Your task to perform on an android device: Search for Mexican restaurants on Maps Image 0: 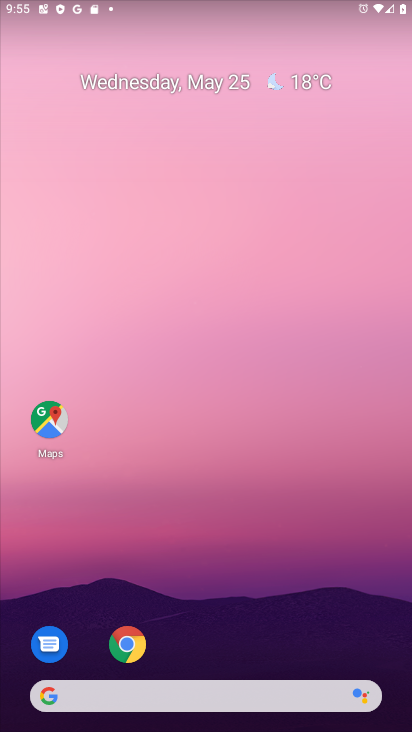
Step 0: click (44, 419)
Your task to perform on an android device: Search for Mexican restaurants on Maps Image 1: 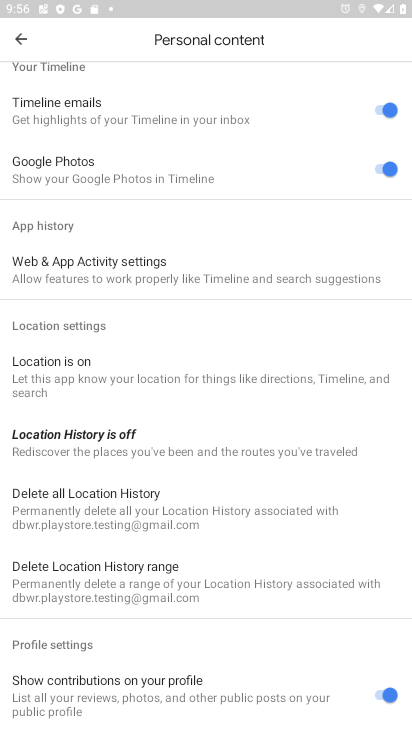
Step 1: click (23, 39)
Your task to perform on an android device: Search for Mexican restaurants on Maps Image 2: 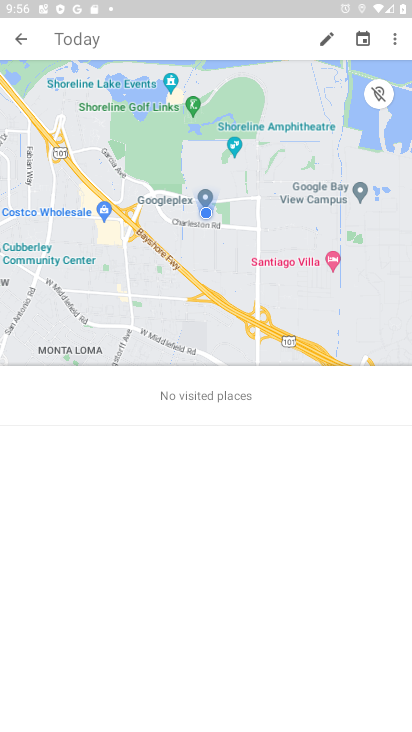
Step 2: click (24, 35)
Your task to perform on an android device: Search for Mexican restaurants on Maps Image 3: 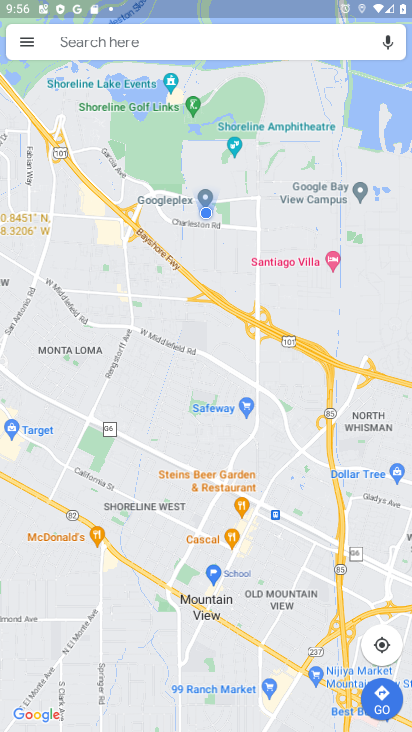
Step 3: click (114, 40)
Your task to perform on an android device: Search for Mexican restaurants on Maps Image 4: 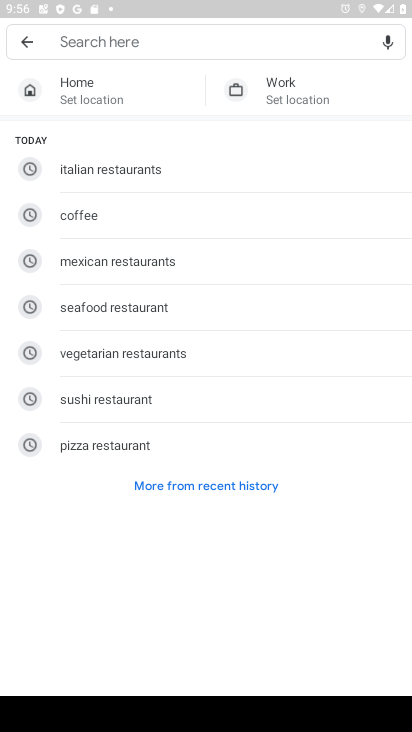
Step 4: click (194, 259)
Your task to perform on an android device: Search for Mexican restaurants on Maps Image 5: 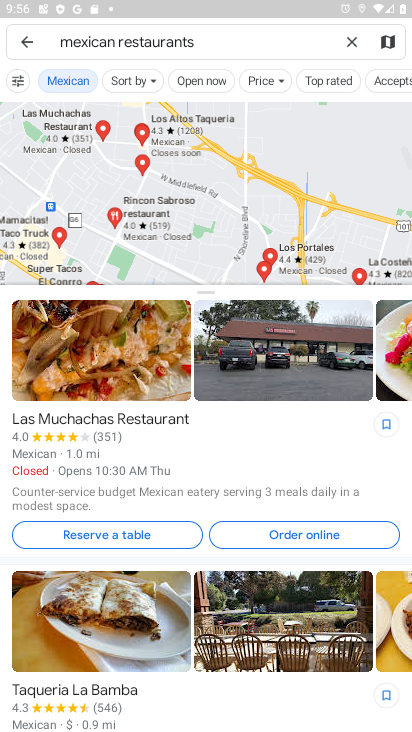
Step 5: task complete